Your task to perform on an android device: Go to Maps Image 0: 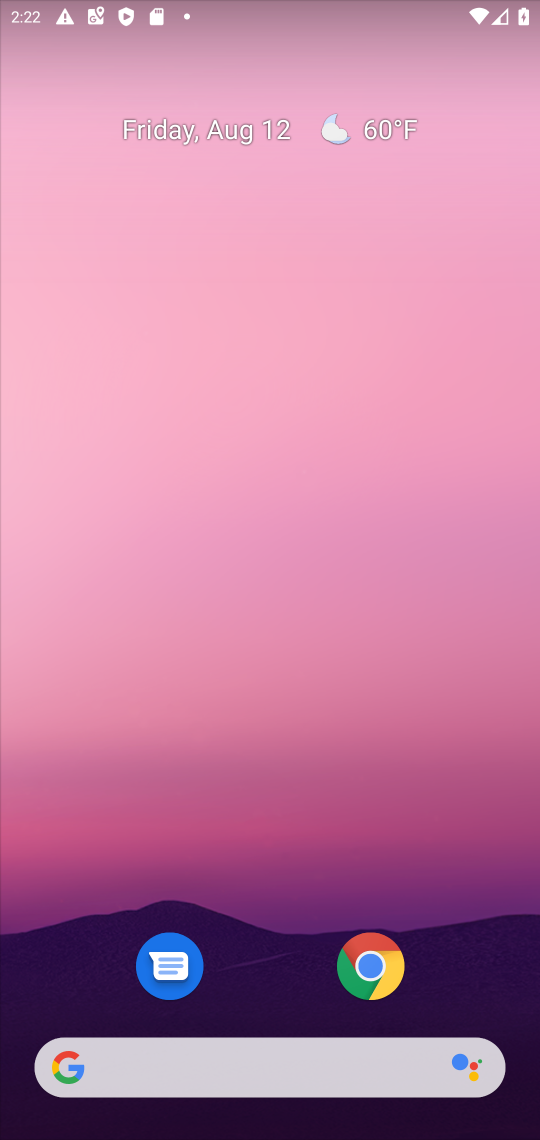
Step 0: drag from (253, 931) to (315, 55)
Your task to perform on an android device: Go to Maps Image 1: 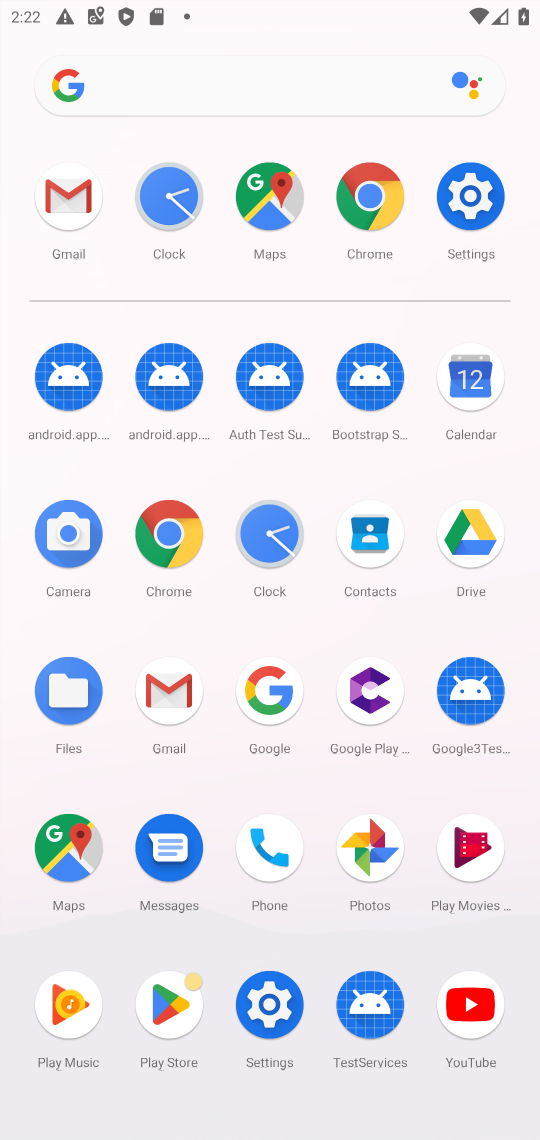
Step 1: click (66, 846)
Your task to perform on an android device: Go to Maps Image 2: 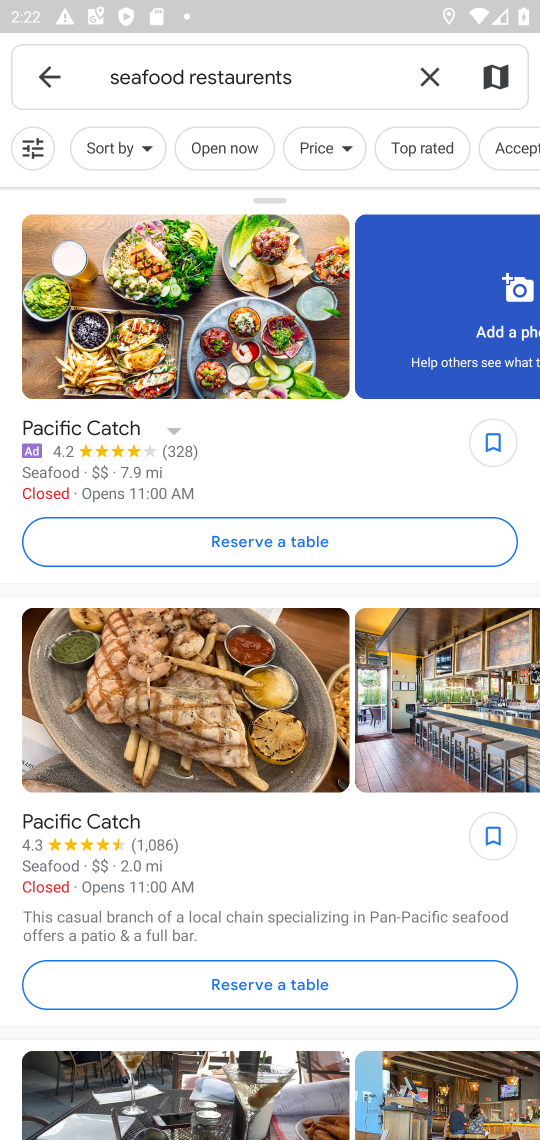
Step 2: task complete